Your task to perform on an android device: stop showing notifications on the lock screen Image 0: 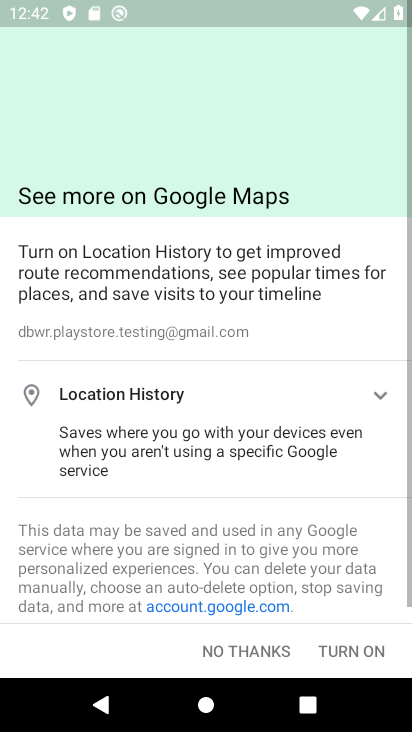
Step 0: press home button
Your task to perform on an android device: stop showing notifications on the lock screen Image 1: 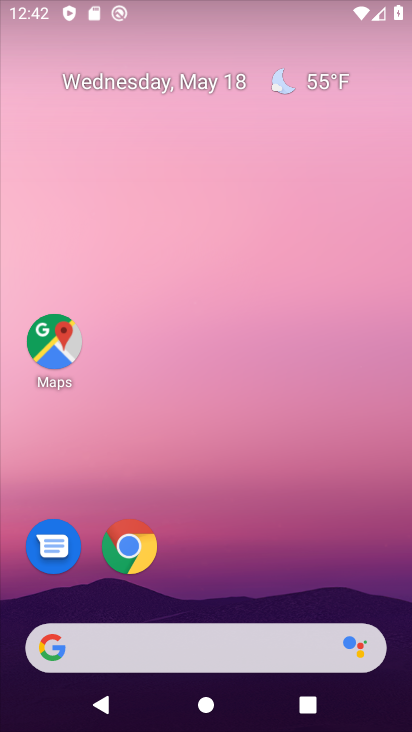
Step 1: drag from (348, 578) to (338, 153)
Your task to perform on an android device: stop showing notifications on the lock screen Image 2: 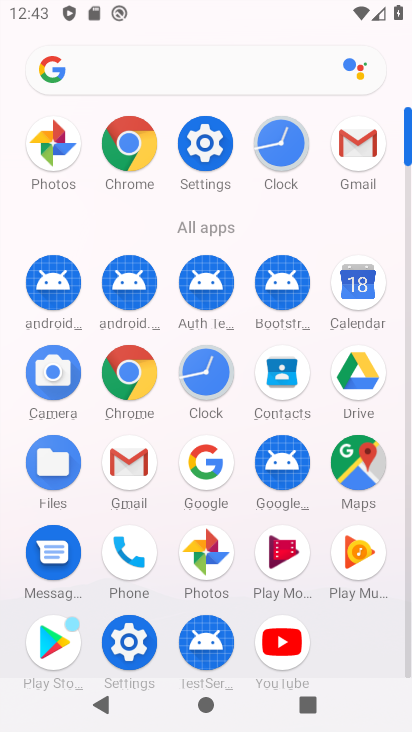
Step 2: click (121, 645)
Your task to perform on an android device: stop showing notifications on the lock screen Image 3: 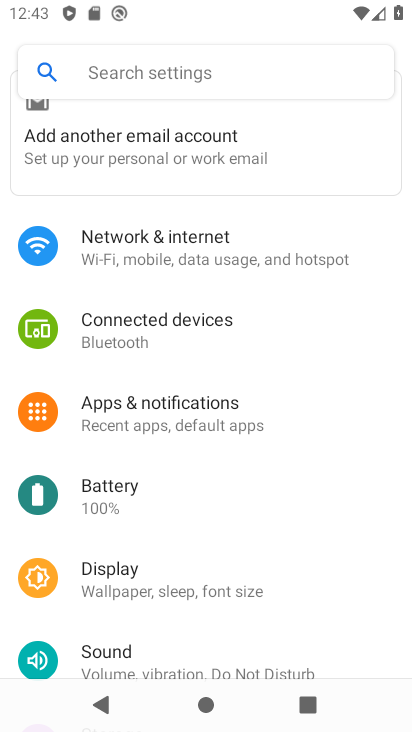
Step 3: click (173, 411)
Your task to perform on an android device: stop showing notifications on the lock screen Image 4: 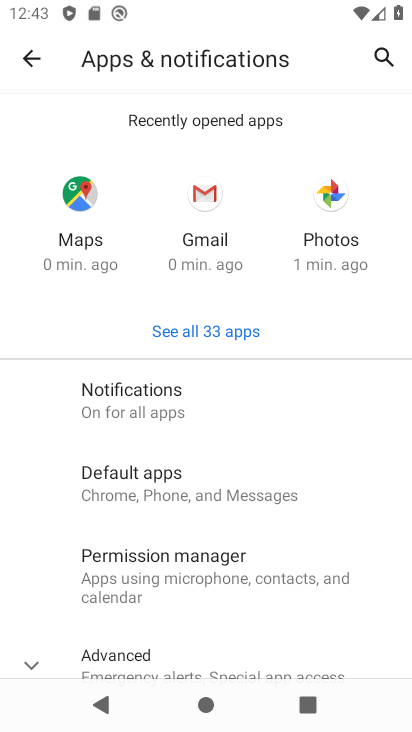
Step 4: click (196, 400)
Your task to perform on an android device: stop showing notifications on the lock screen Image 5: 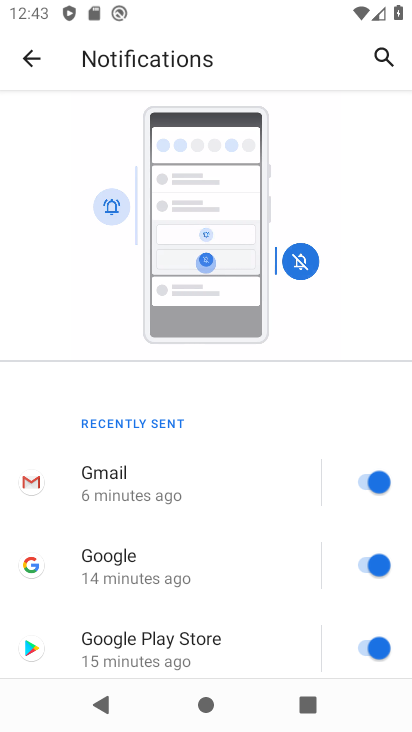
Step 5: drag from (236, 588) to (295, 382)
Your task to perform on an android device: stop showing notifications on the lock screen Image 6: 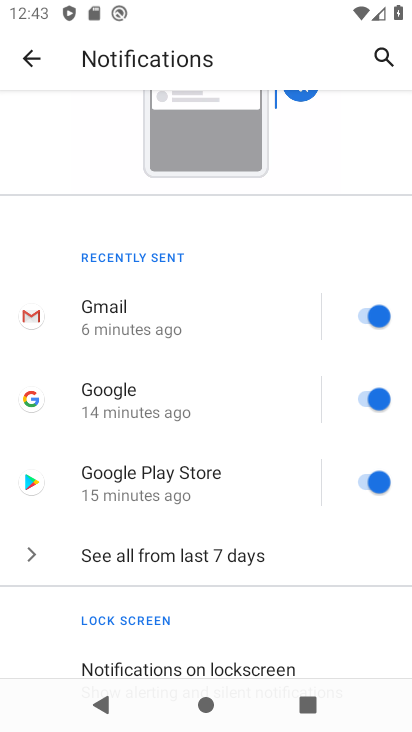
Step 6: drag from (242, 628) to (291, 403)
Your task to perform on an android device: stop showing notifications on the lock screen Image 7: 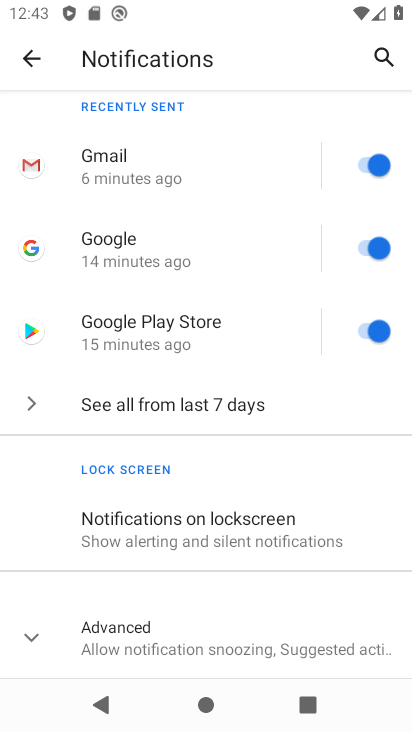
Step 7: click (278, 501)
Your task to perform on an android device: stop showing notifications on the lock screen Image 8: 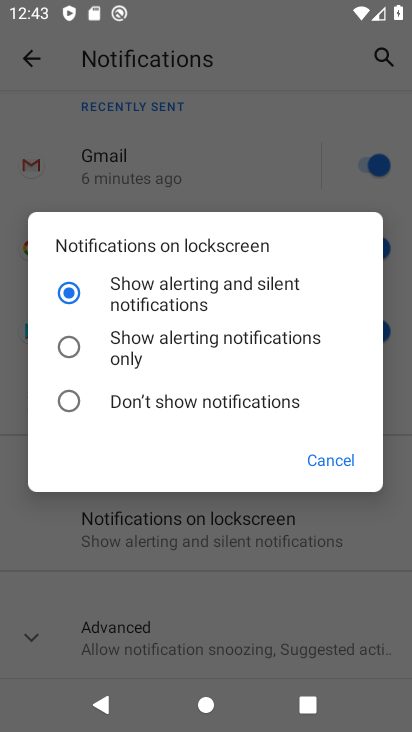
Step 8: click (268, 389)
Your task to perform on an android device: stop showing notifications on the lock screen Image 9: 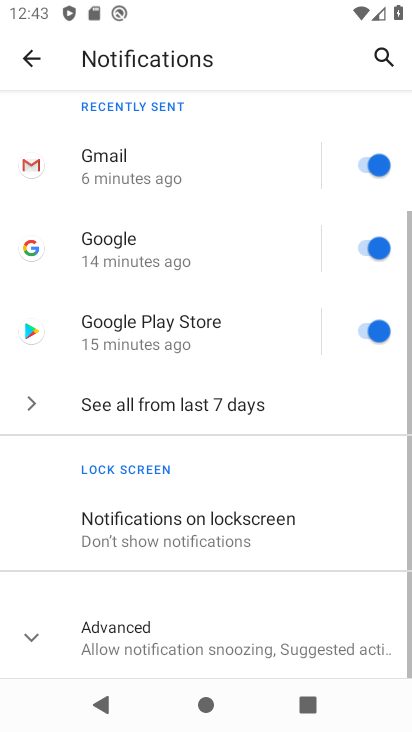
Step 9: task complete